Your task to perform on an android device: Open Chrome and go to the settings page Image 0: 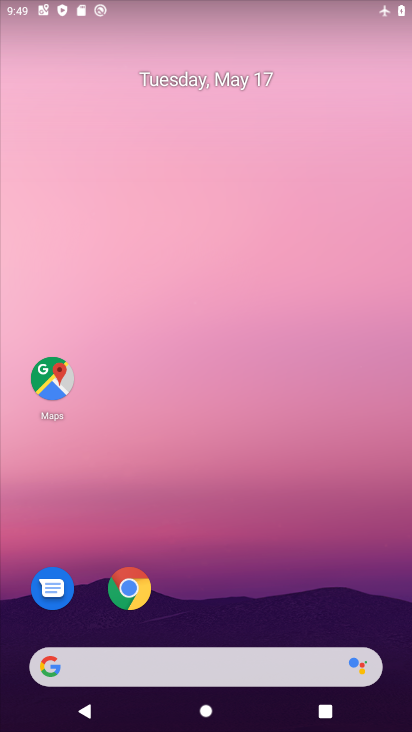
Step 0: click (146, 592)
Your task to perform on an android device: Open Chrome and go to the settings page Image 1: 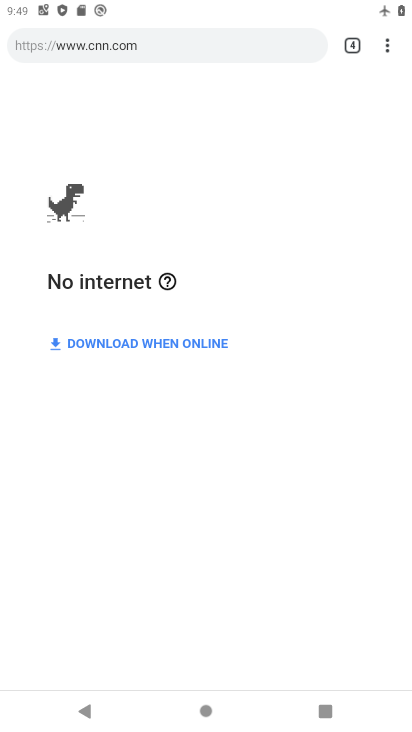
Step 1: click (388, 52)
Your task to perform on an android device: Open Chrome and go to the settings page Image 2: 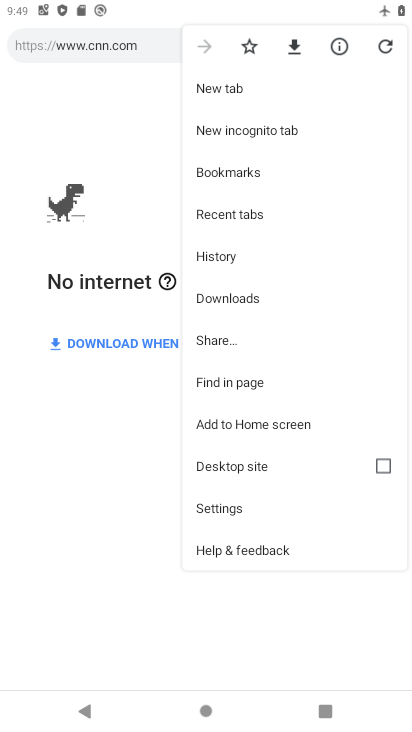
Step 2: click (221, 517)
Your task to perform on an android device: Open Chrome and go to the settings page Image 3: 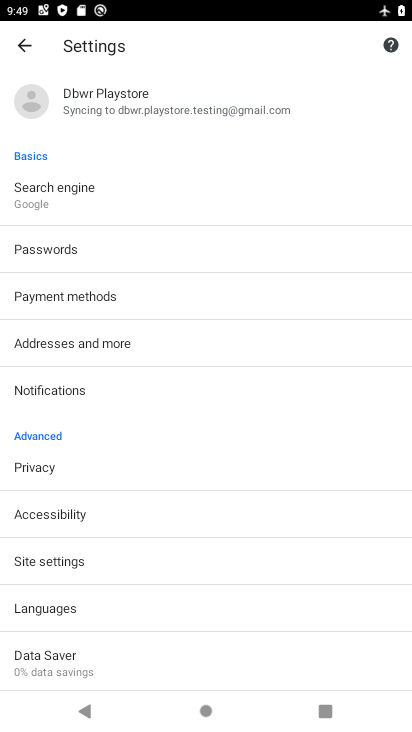
Step 3: task complete